Your task to perform on an android device: Open Maps and search for coffee Image 0: 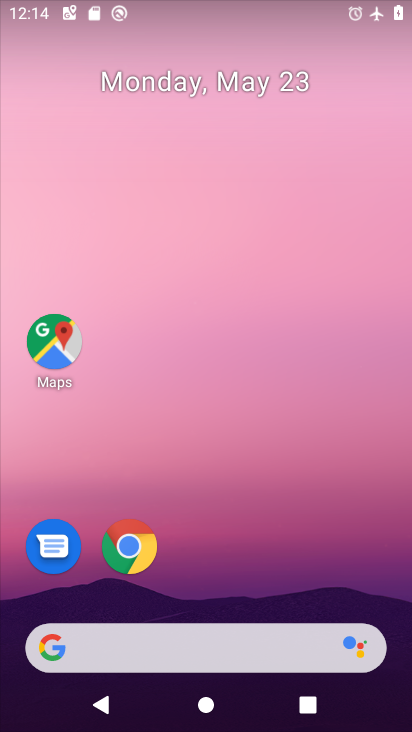
Step 0: drag from (344, 245) to (350, 55)
Your task to perform on an android device: Open Maps and search for coffee Image 1: 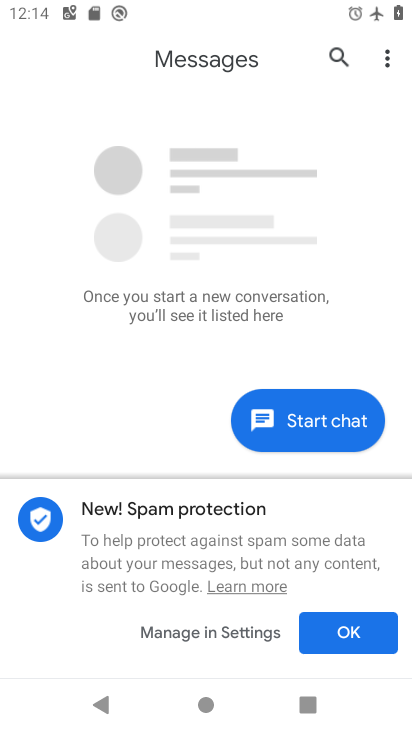
Step 1: press home button
Your task to perform on an android device: Open Maps and search for coffee Image 2: 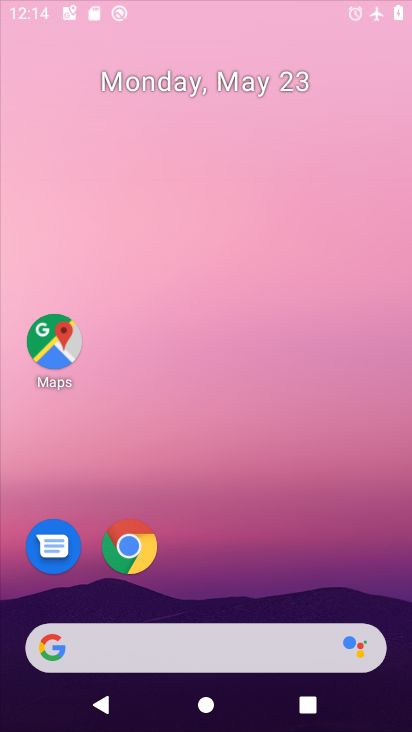
Step 2: drag from (214, 645) to (253, 117)
Your task to perform on an android device: Open Maps and search for coffee Image 3: 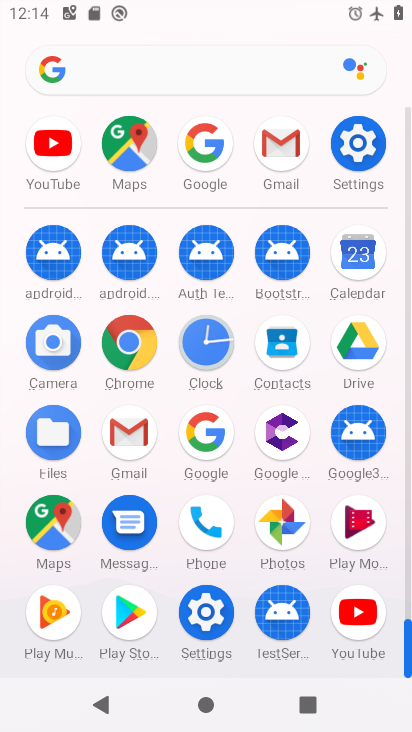
Step 3: click (56, 542)
Your task to perform on an android device: Open Maps and search for coffee Image 4: 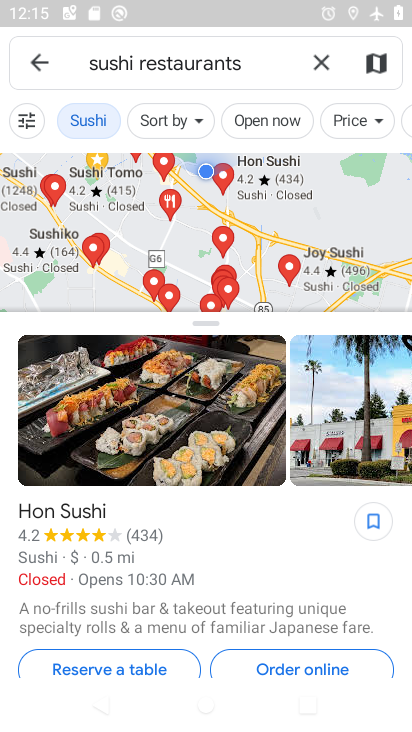
Step 4: click (326, 71)
Your task to perform on an android device: Open Maps and search for coffee Image 5: 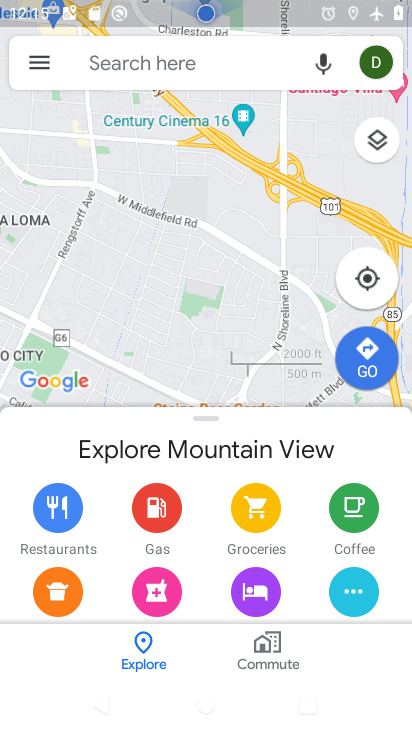
Step 5: click (201, 77)
Your task to perform on an android device: Open Maps and search for coffee Image 6: 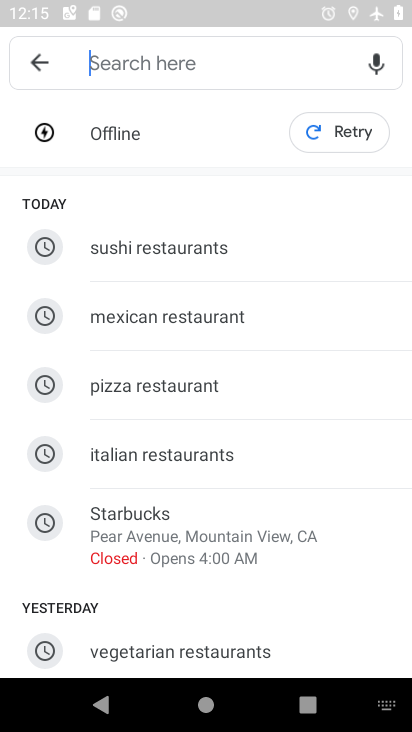
Step 6: drag from (254, 490) to (225, 111)
Your task to perform on an android device: Open Maps and search for coffee Image 7: 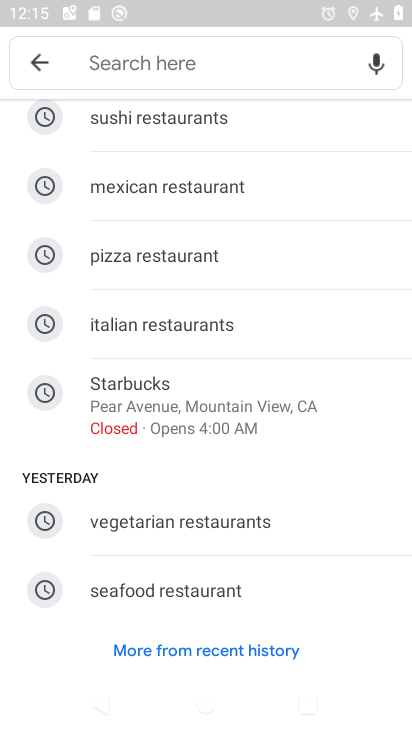
Step 7: click (259, 72)
Your task to perform on an android device: Open Maps and search for coffee Image 8: 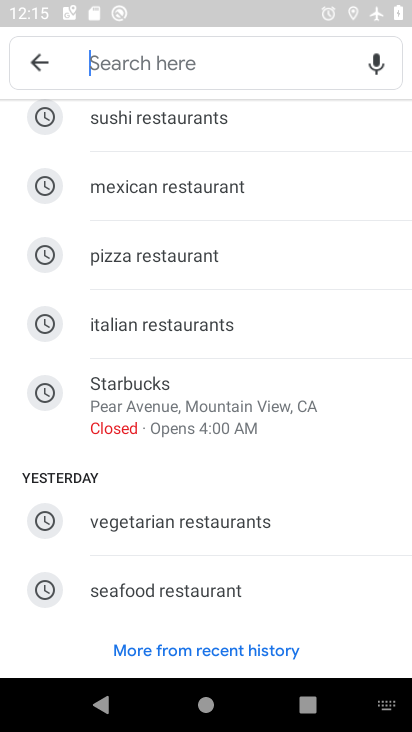
Step 8: type "coffee"
Your task to perform on an android device: Open Maps and search for coffee Image 9: 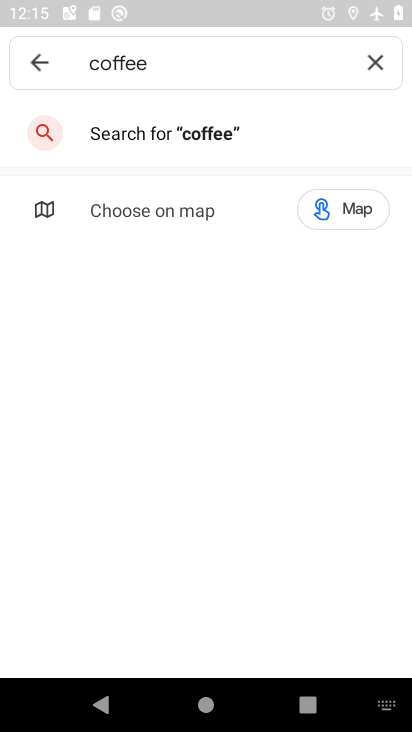
Step 9: task complete